Your task to perform on an android device: Open the calendar and show me this week's events Image 0: 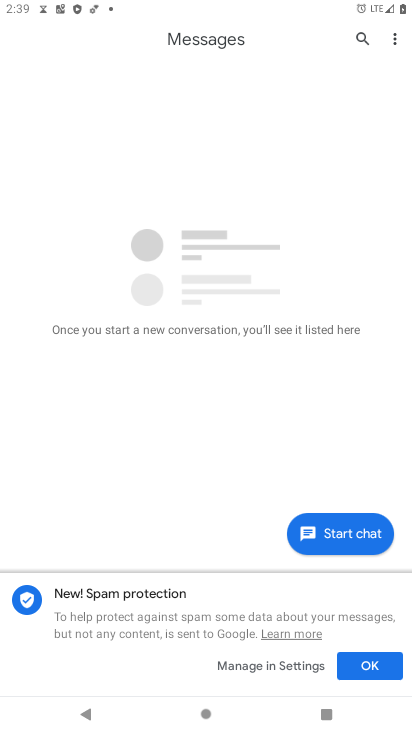
Step 0: press home button
Your task to perform on an android device: Open the calendar and show me this week's events Image 1: 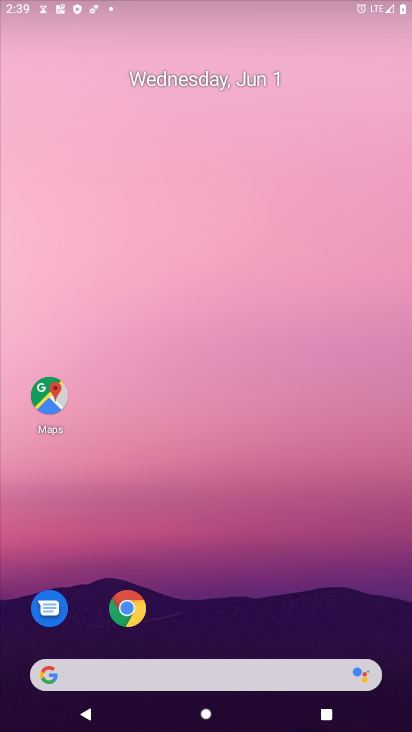
Step 1: drag from (215, 545) to (271, 143)
Your task to perform on an android device: Open the calendar and show me this week's events Image 2: 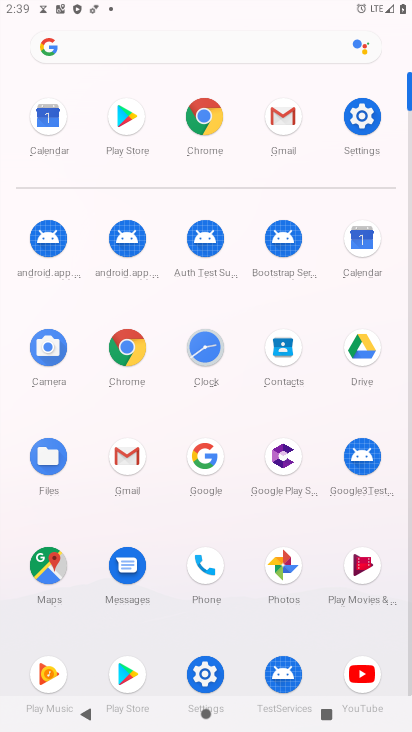
Step 2: click (372, 236)
Your task to perform on an android device: Open the calendar and show me this week's events Image 3: 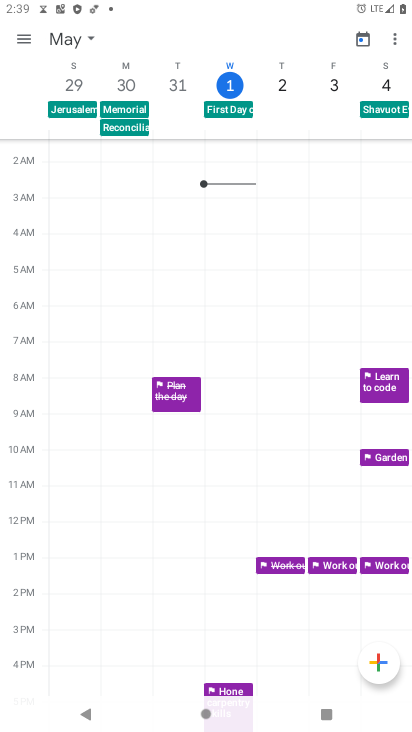
Step 3: click (21, 35)
Your task to perform on an android device: Open the calendar and show me this week's events Image 4: 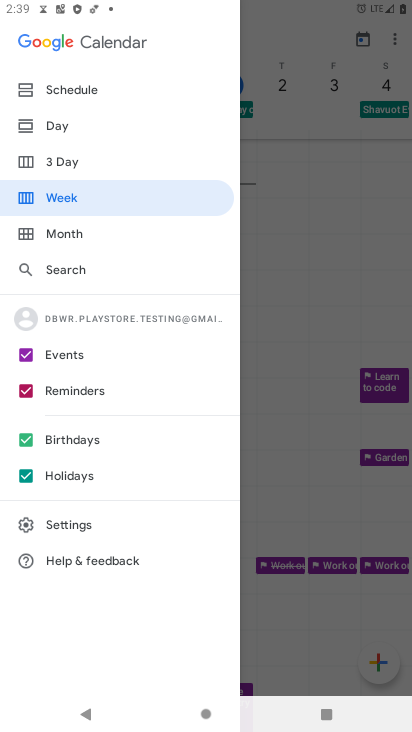
Step 4: click (61, 184)
Your task to perform on an android device: Open the calendar and show me this week's events Image 5: 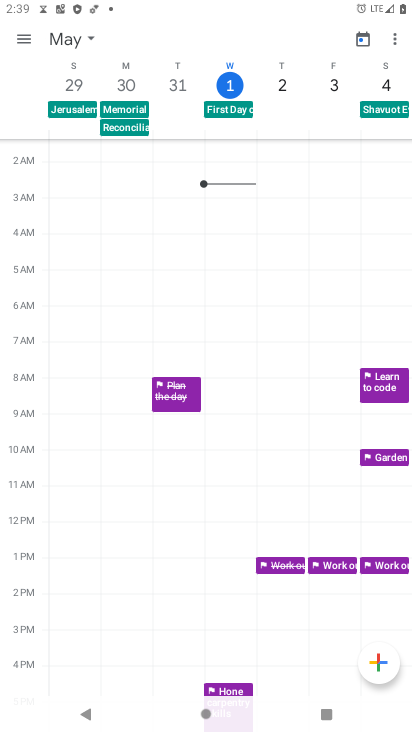
Step 5: task complete